Your task to perform on an android device: Search for a custom-made wallet on Etsy Image 0: 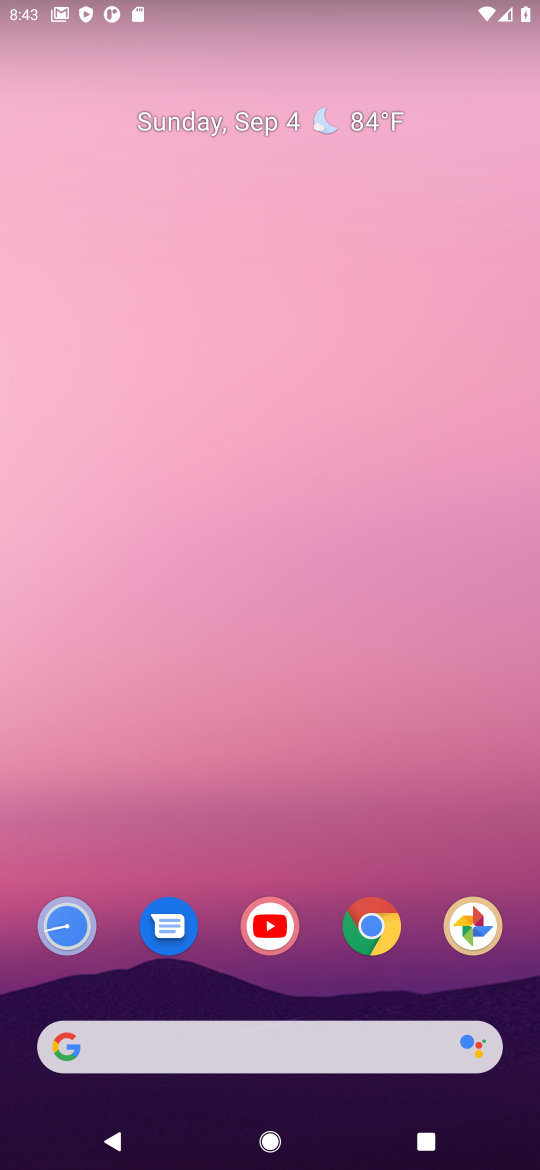
Step 0: click (256, 1037)
Your task to perform on an android device: Search for a custom-made wallet on Etsy Image 1: 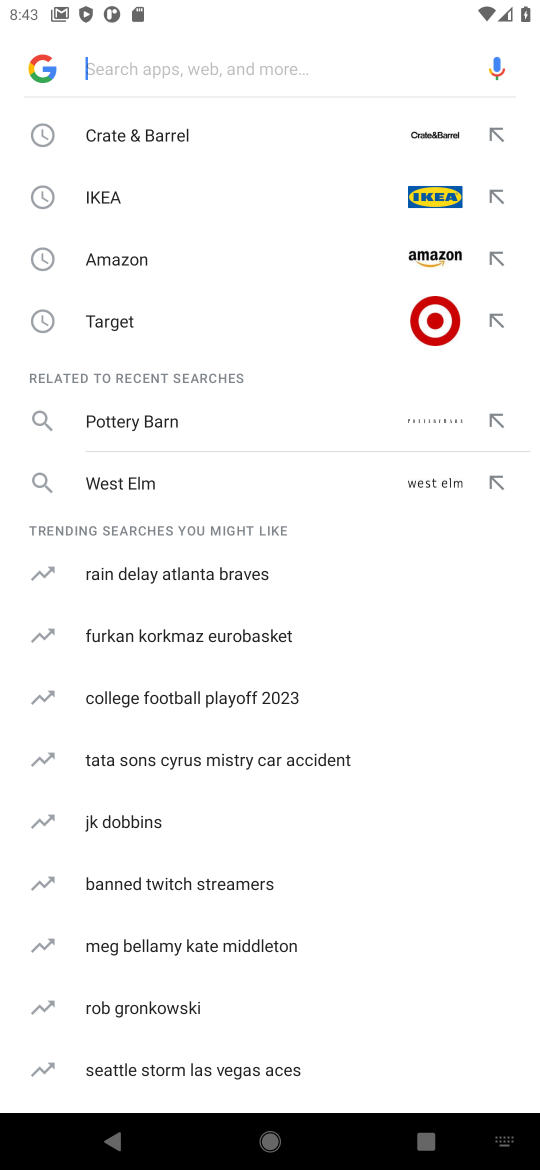
Step 1: type "etsy"
Your task to perform on an android device: Search for a custom-made wallet on Etsy Image 2: 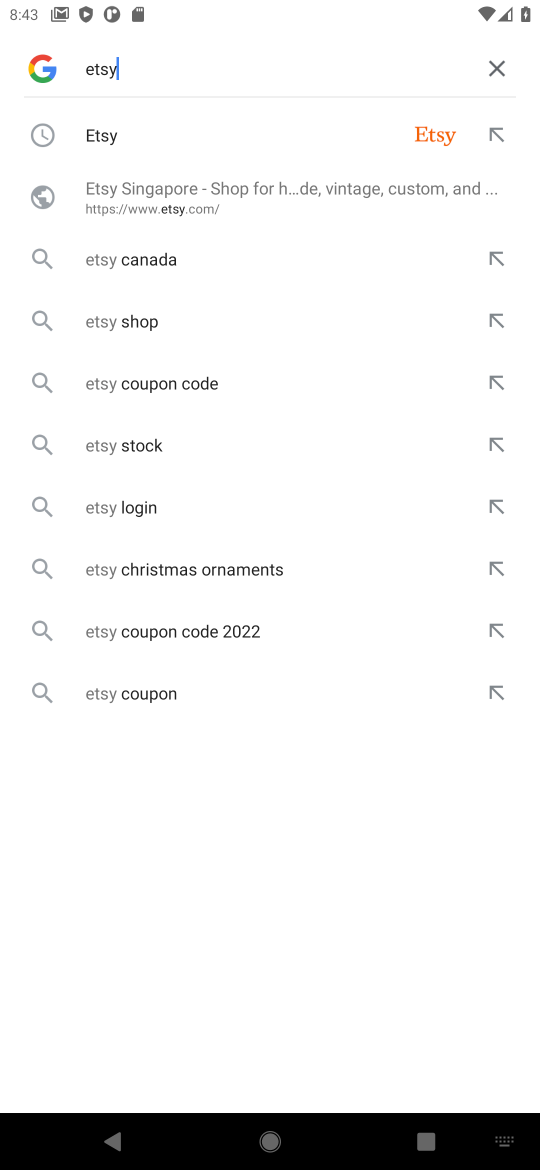
Step 2: click (101, 129)
Your task to perform on an android device: Search for a custom-made wallet on Etsy Image 3: 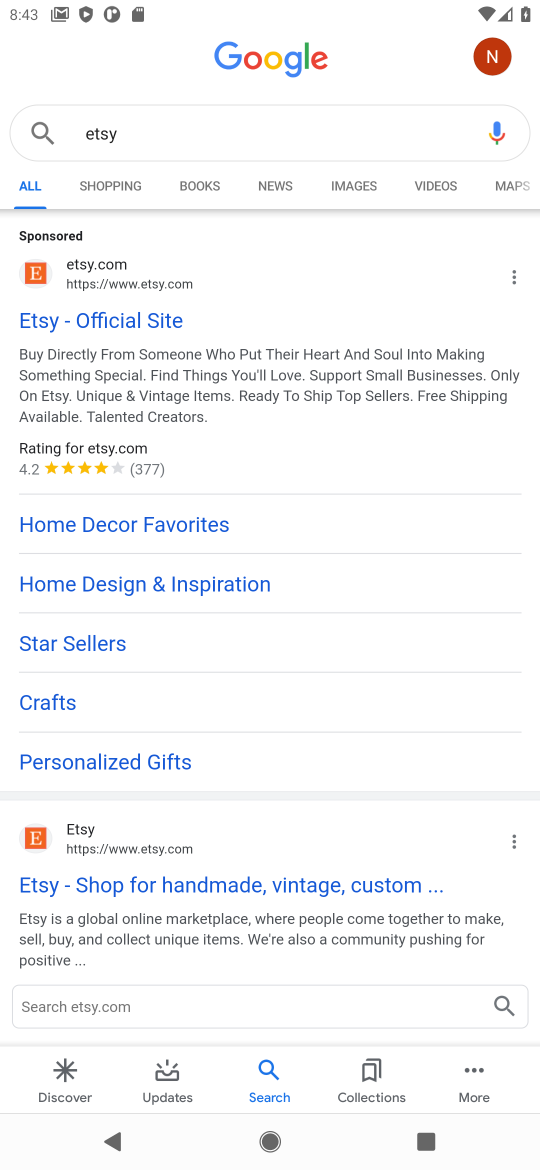
Step 3: click (68, 322)
Your task to perform on an android device: Search for a custom-made wallet on Etsy Image 4: 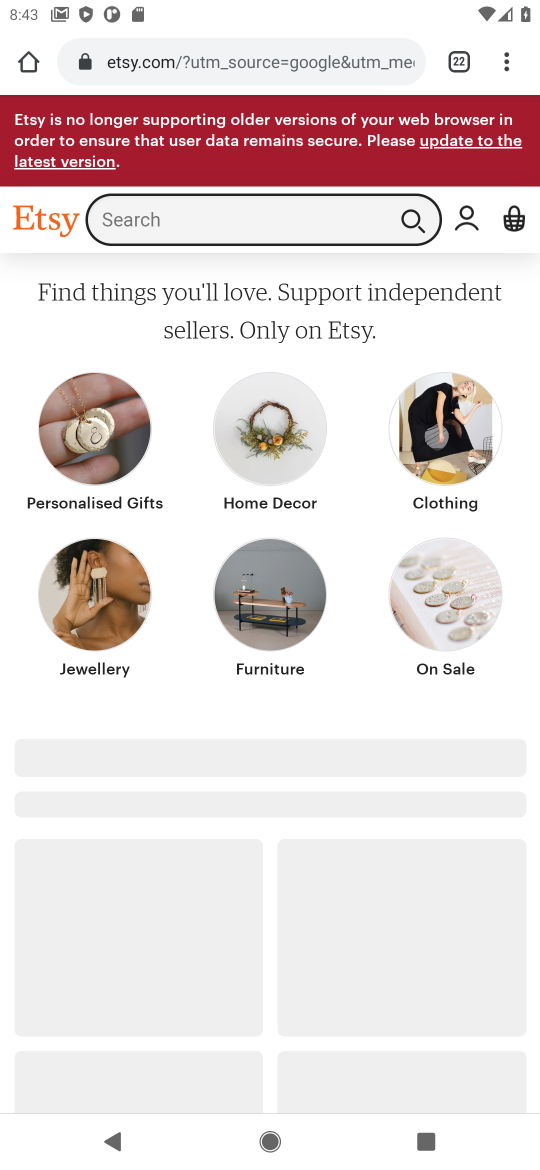
Step 4: click (207, 221)
Your task to perform on an android device: Search for a custom-made wallet on Etsy Image 5: 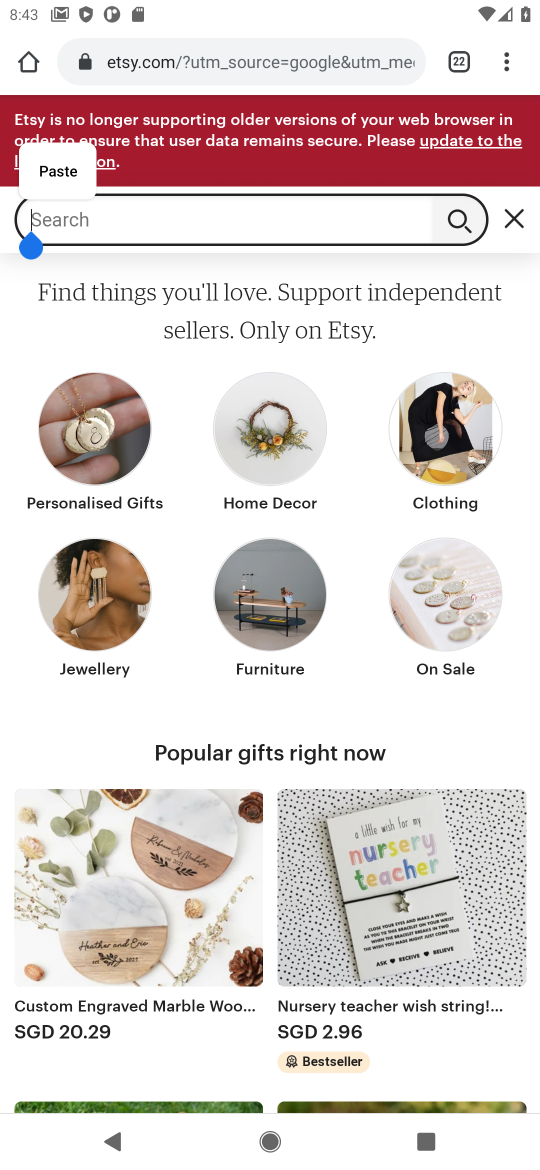
Step 5: click (217, 213)
Your task to perform on an android device: Search for a custom-made wallet on Etsy Image 6: 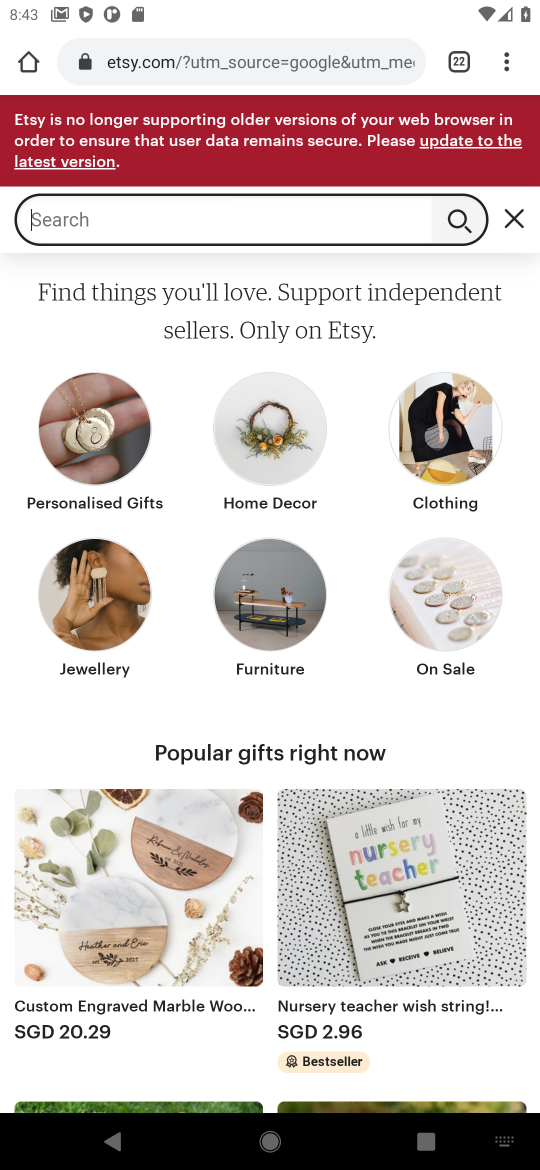
Step 6: type "custom made wallet"
Your task to perform on an android device: Search for a custom-made wallet on Etsy Image 7: 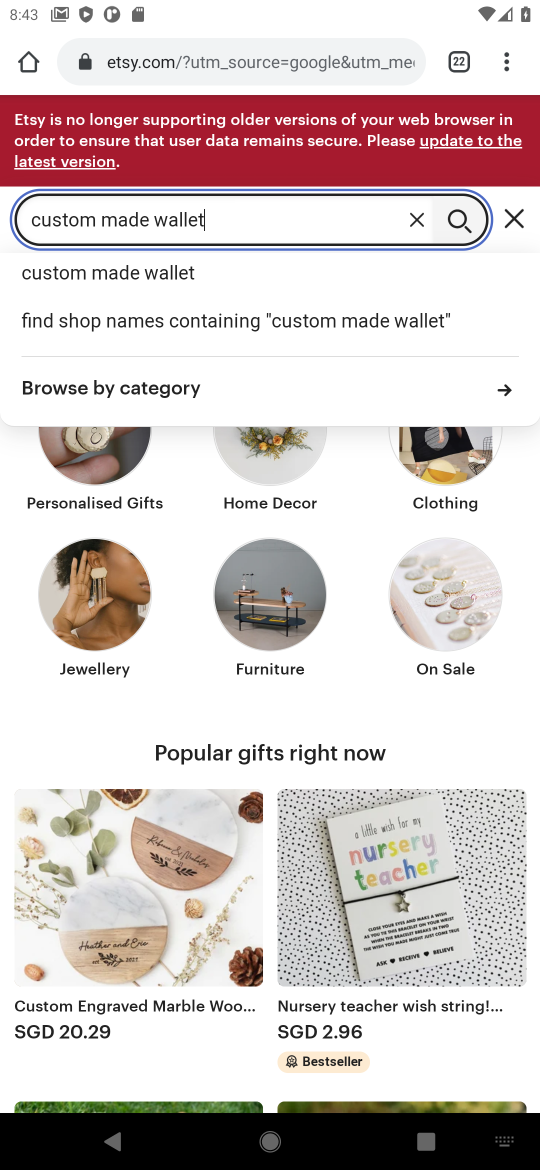
Step 7: click (458, 211)
Your task to perform on an android device: Search for a custom-made wallet on Etsy Image 8: 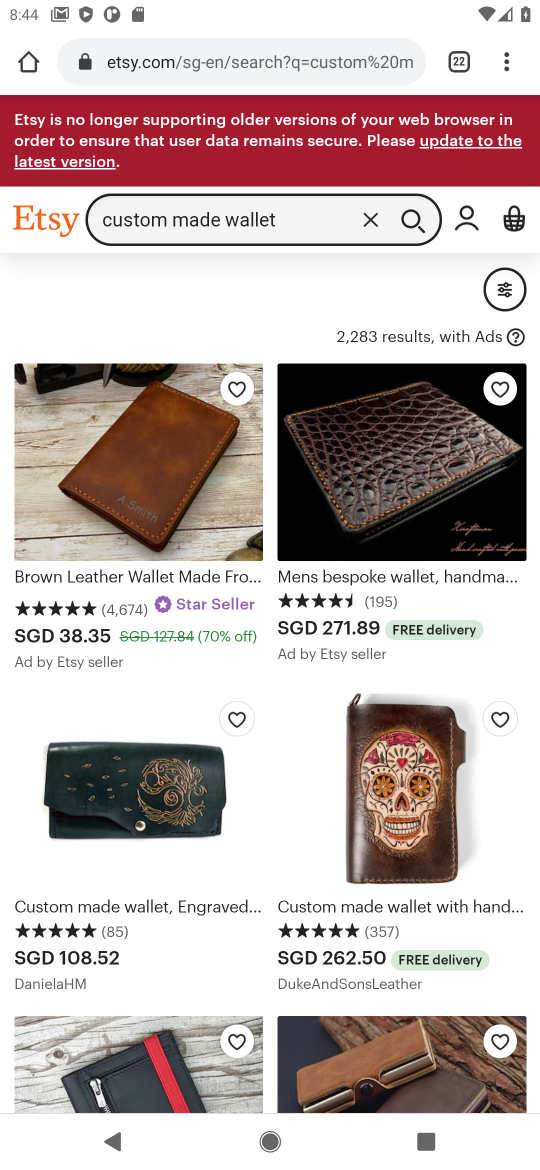
Step 8: task complete